Your task to perform on an android device: open a bookmark in the chrome app Image 0: 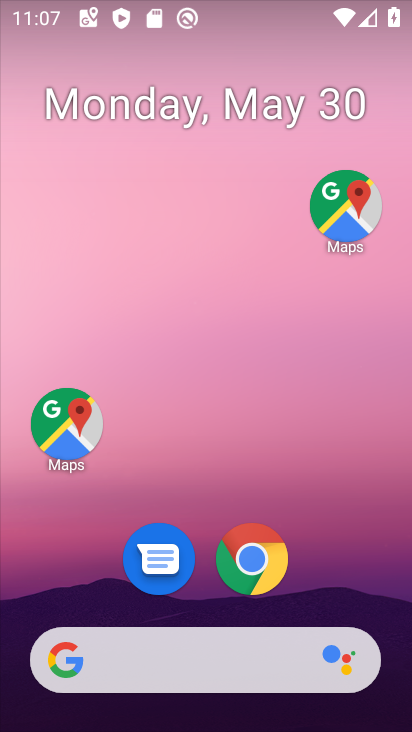
Step 0: drag from (344, 564) to (283, 65)
Your task to perform on an android device: open a bookmark in the chrome app Image 1: 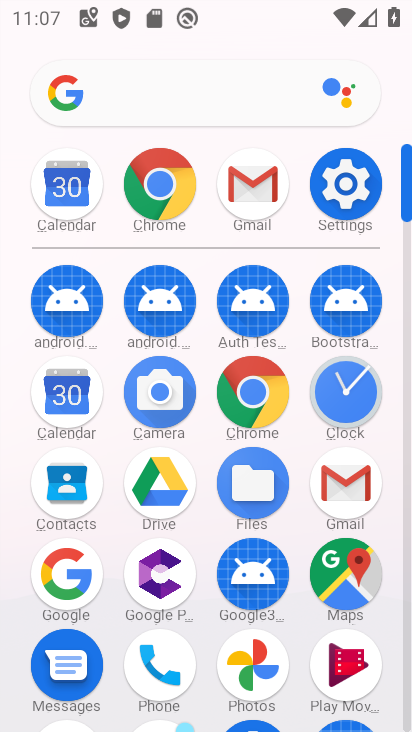
Step 1: click (259, 398)
Your task to perform on an android device: open a bookmark in the chrome app Image 2: 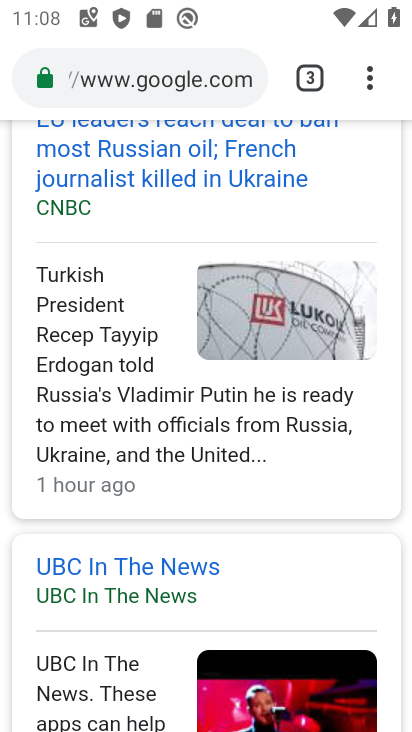
Step 2: drag from (371, 66) to (78, 295)
Your task to perform on an android device: open a bookmark in the chrome app Image 3: 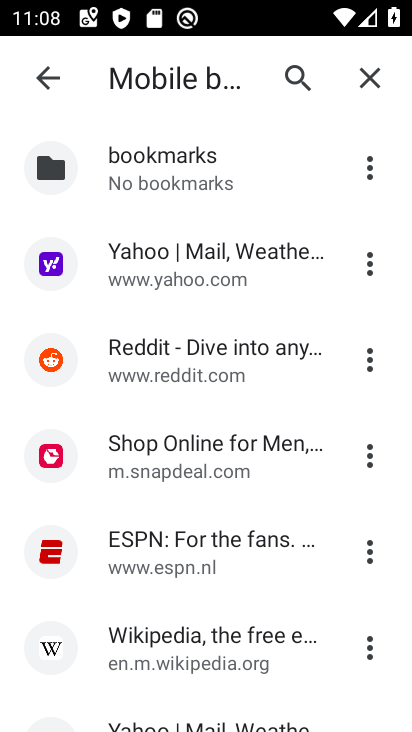
Step 3: click (172, 262)
Your task to perform on an android device: open a bookmark in the chrome app Image 4: 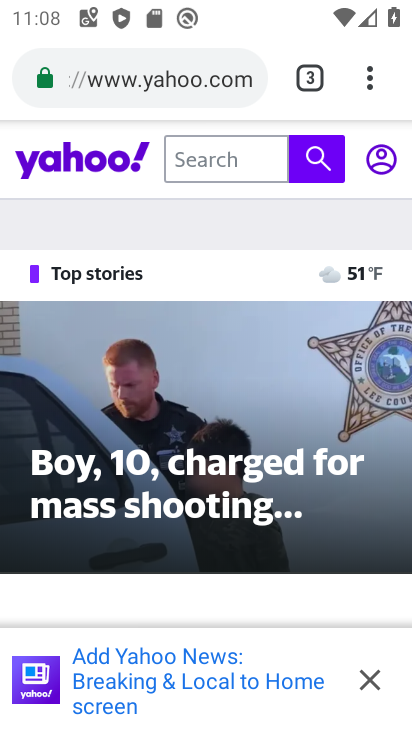
Step 4: task complete